Your task to perform on an android device: What's on my calendar today? Image 0: 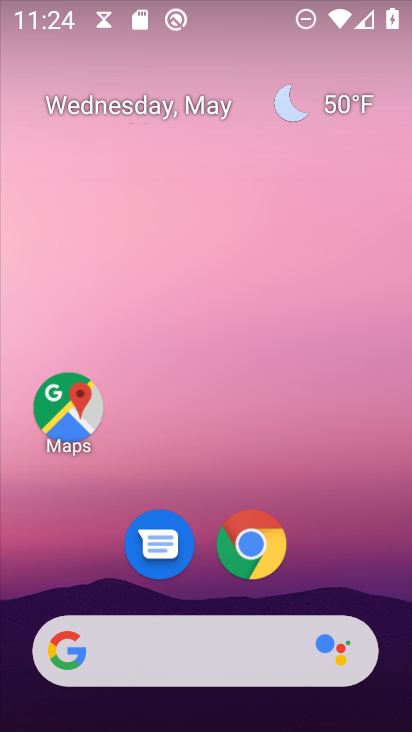
Step 0: click (138, 106)
Your task to perform on an android device: What's on my calendar today? Image 1: 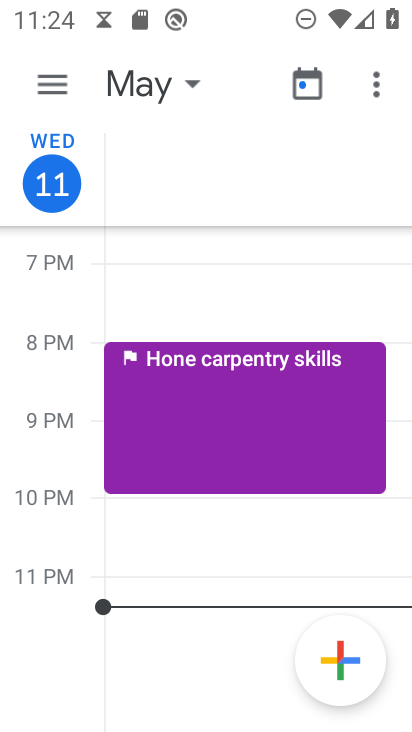
Step 1: click (160, 102)
Your task to perform on an android device: What's on my calendar today? Image 2: 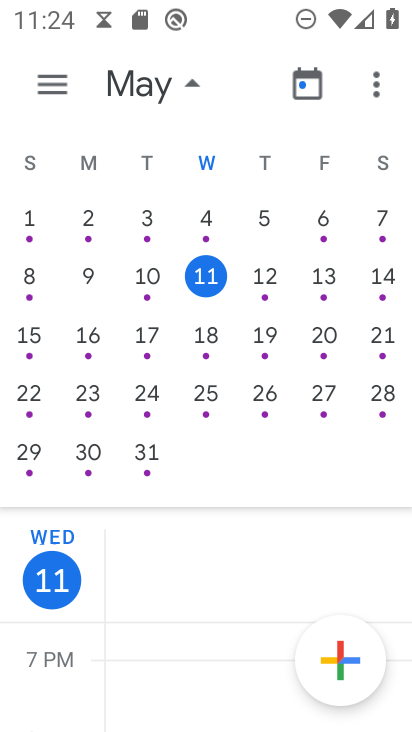
Step 2: click (217, 280)
Your task to perform on an android device: What's on my calendar today? Image 3: 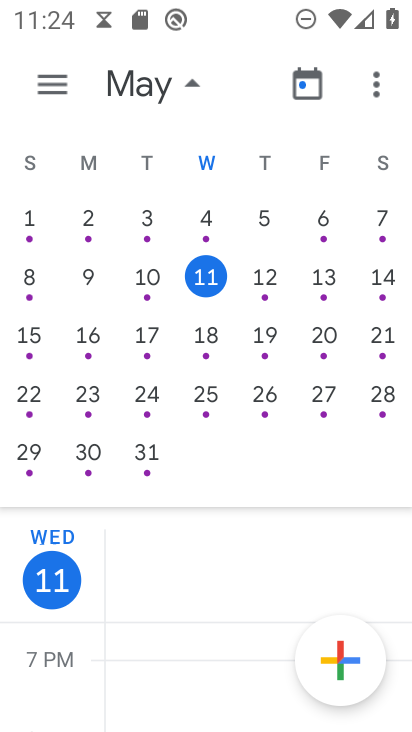
Step 3: task complete